Your task to perform on an android device: Open settings Image 0: 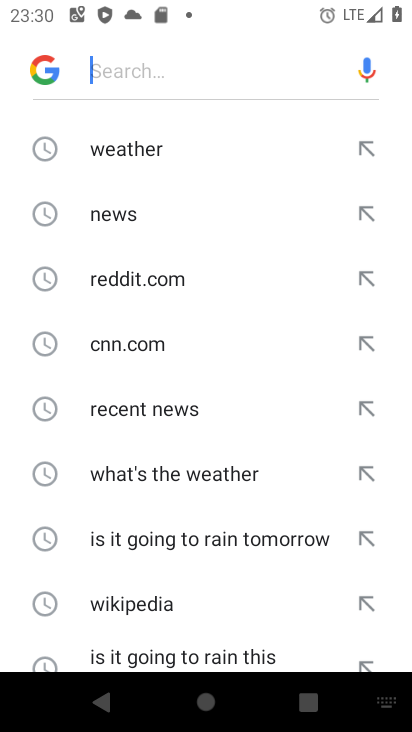
Step 0: press home button
Your task to perform on an android device: Open settings Image 1: 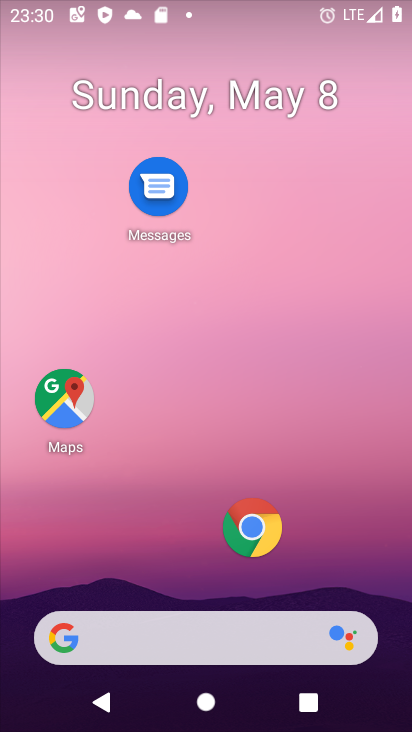
Step 1: drag from (209, 585) to (326, 23)
Your task to perform on an android device: Open settings Image 2: 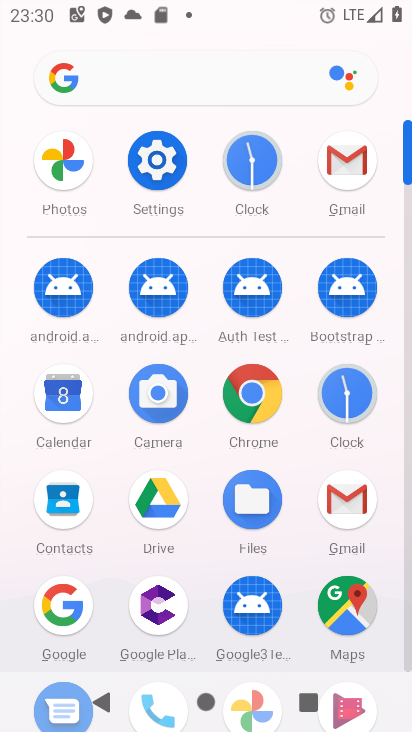
Step 2: click (155, 163)
Your task to perform on an android device: Open settings Image 3: 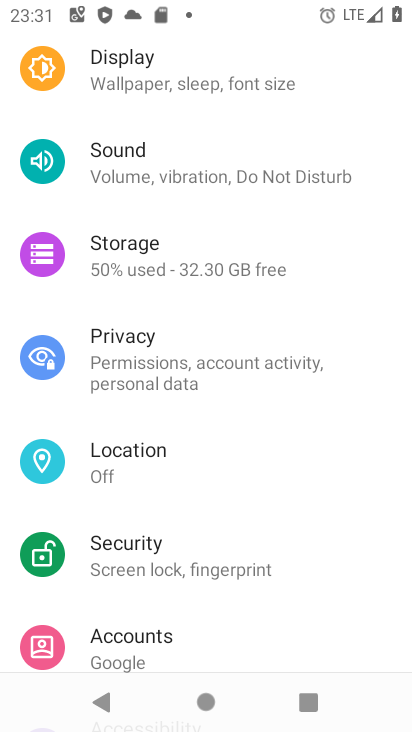
Step 3: task complete